Your task to perform on an android device: Go to Maps Image 0: 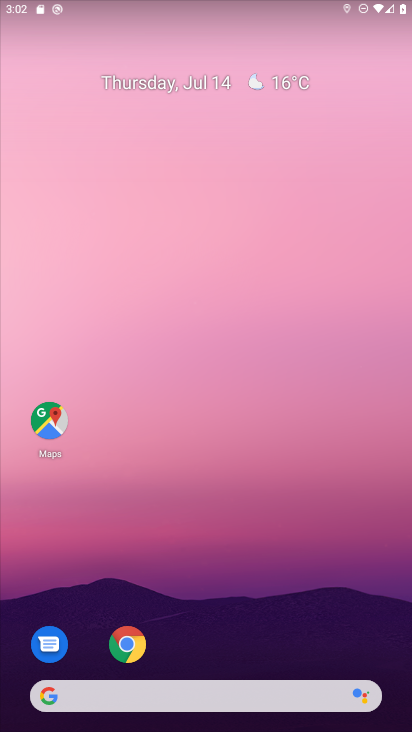
Step 0: click (58, 428)
Your task to perform on an android device: Go to Maps Image 1: 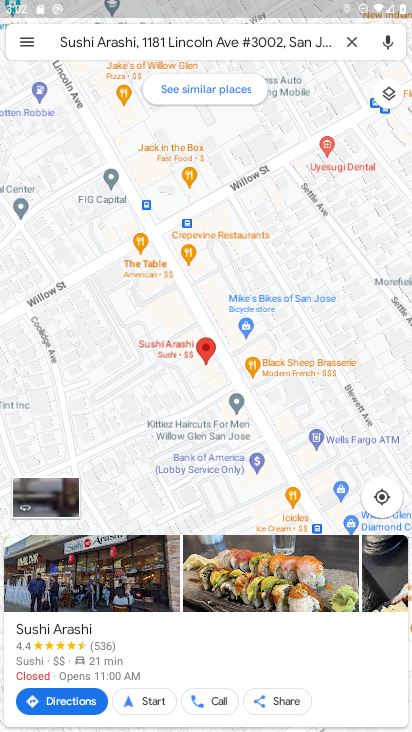
Step 1: task complete